Your task to perform on an android device: turn off improve location accuracy Image 0: 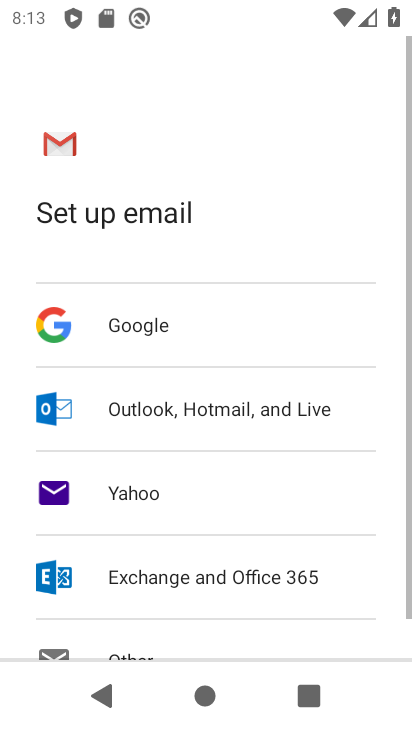
Step 0: press home button
Your task to perform on an android device: turn off improve location accuracy Image 1: 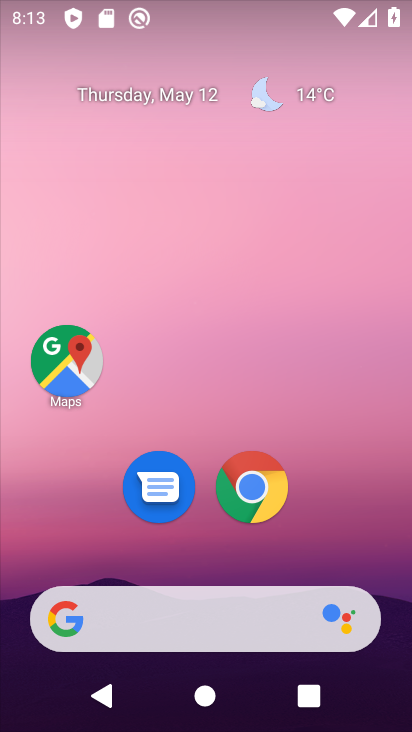
Step 1: drag from (322, 552) to (349, 13)
Your task to perform on an android device: turn off improve location accuracy Image 2: 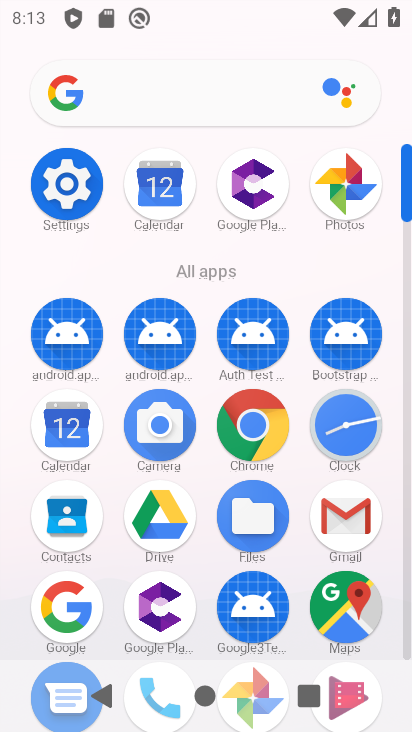
Step 2: click (66, 189)
Your task to perform on an android device: turn off improve location accuracy Image 3: 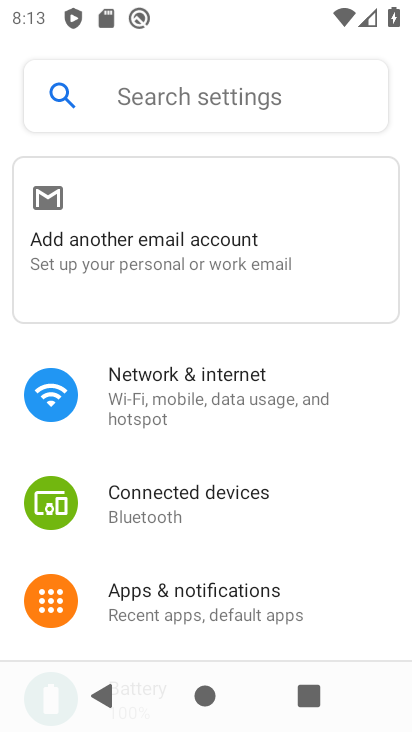
Step 3: drag from (296, 511) to (312, 37)
Your task to perform on an android device: turn off improve location accuracy Image 4: 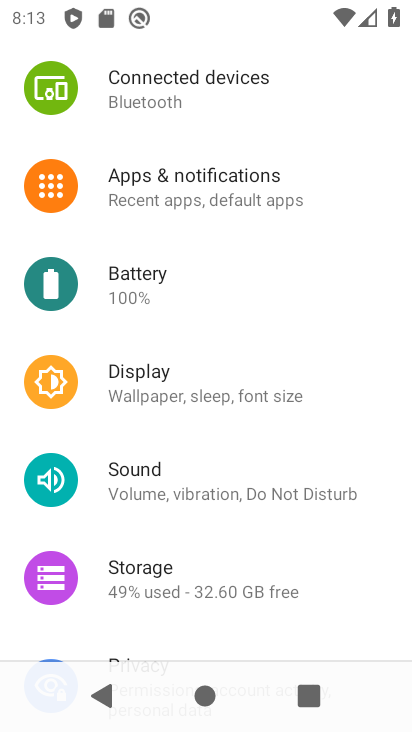
Step 4: drag from (268, 417) to (282, 99)
Your task to perform on an android device: turn off improve location accuracy Image 5: 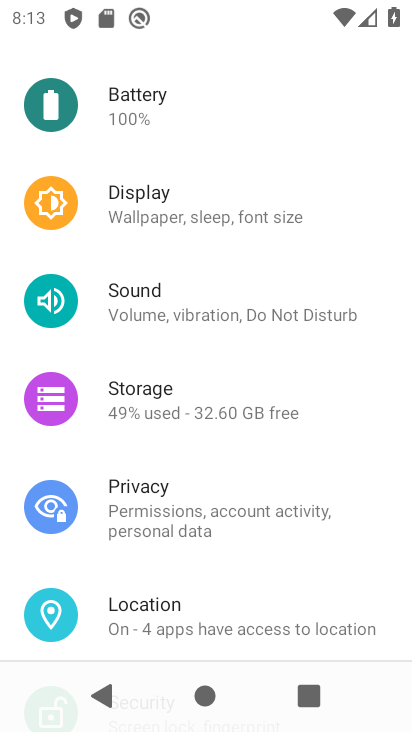
Step 5: click (140, 607)
Your task to perform on an android device: turn off improve location accuracy Image 6: 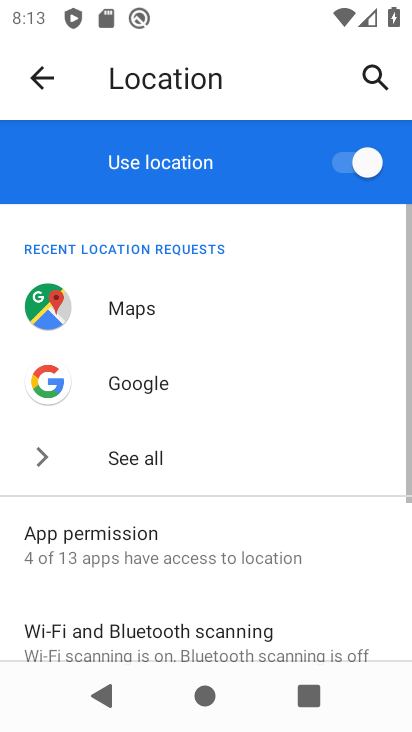
Step 6: drag from (158, 536) to (192, 182)
Your task to perform on an android device: turn off improve location accuracy Image 7: 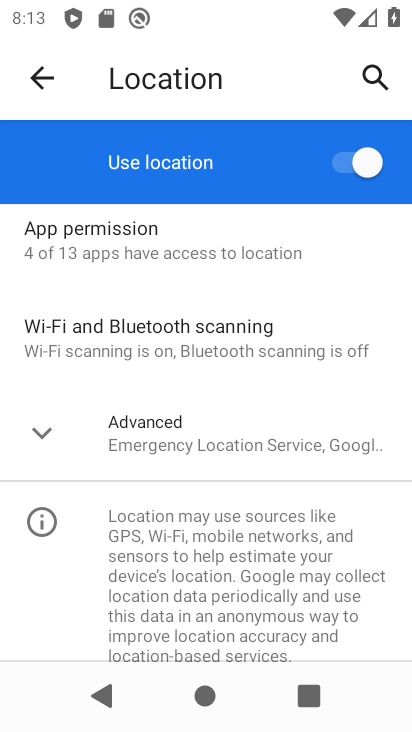
Step 7: click (39, 440)
Your task to perform on an android device: turn off improve location accuracy Image 8: 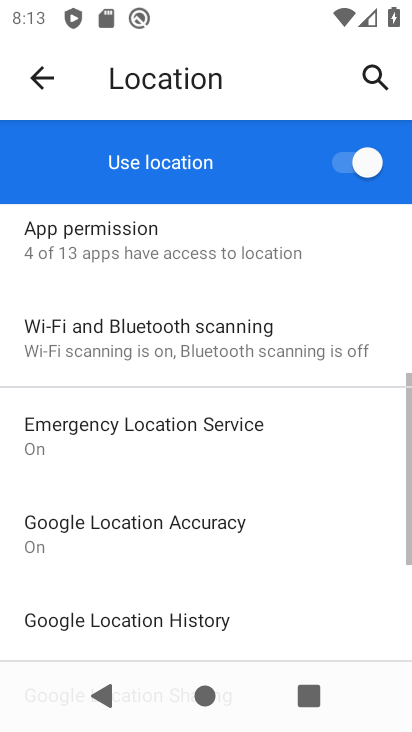
Step 8: click (115, 525)
Your task to perform on an android device: turn off improve location accuracy Image 9: 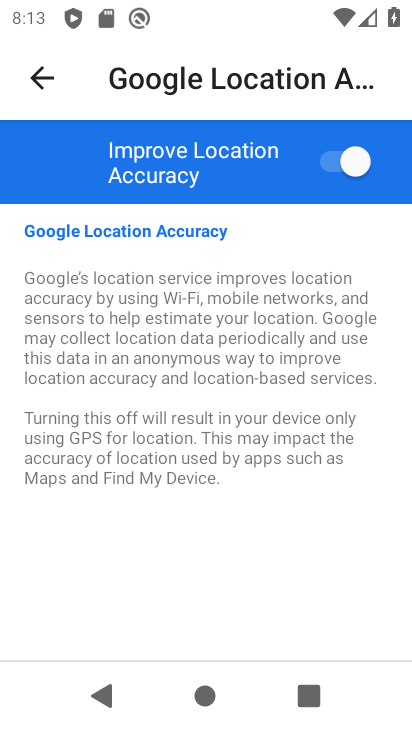
Step 9: click (347, 165)
Your task to perform on an android device: turn off improve location accuracy Image 10: 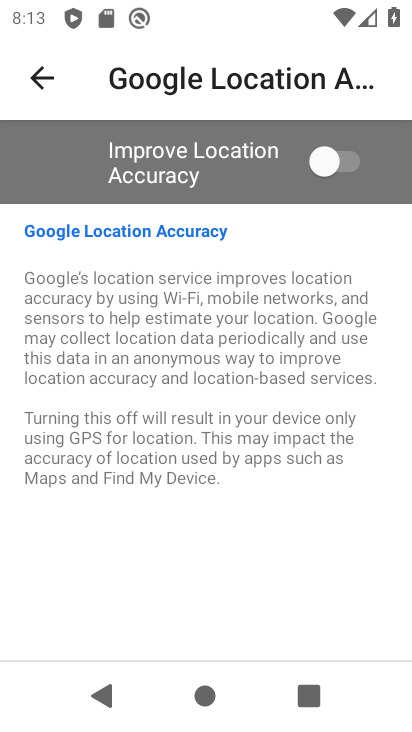
Step 10: task complete